Your task to perform on an android device: Show me the best rated power washer on Home Depot. Image 0: 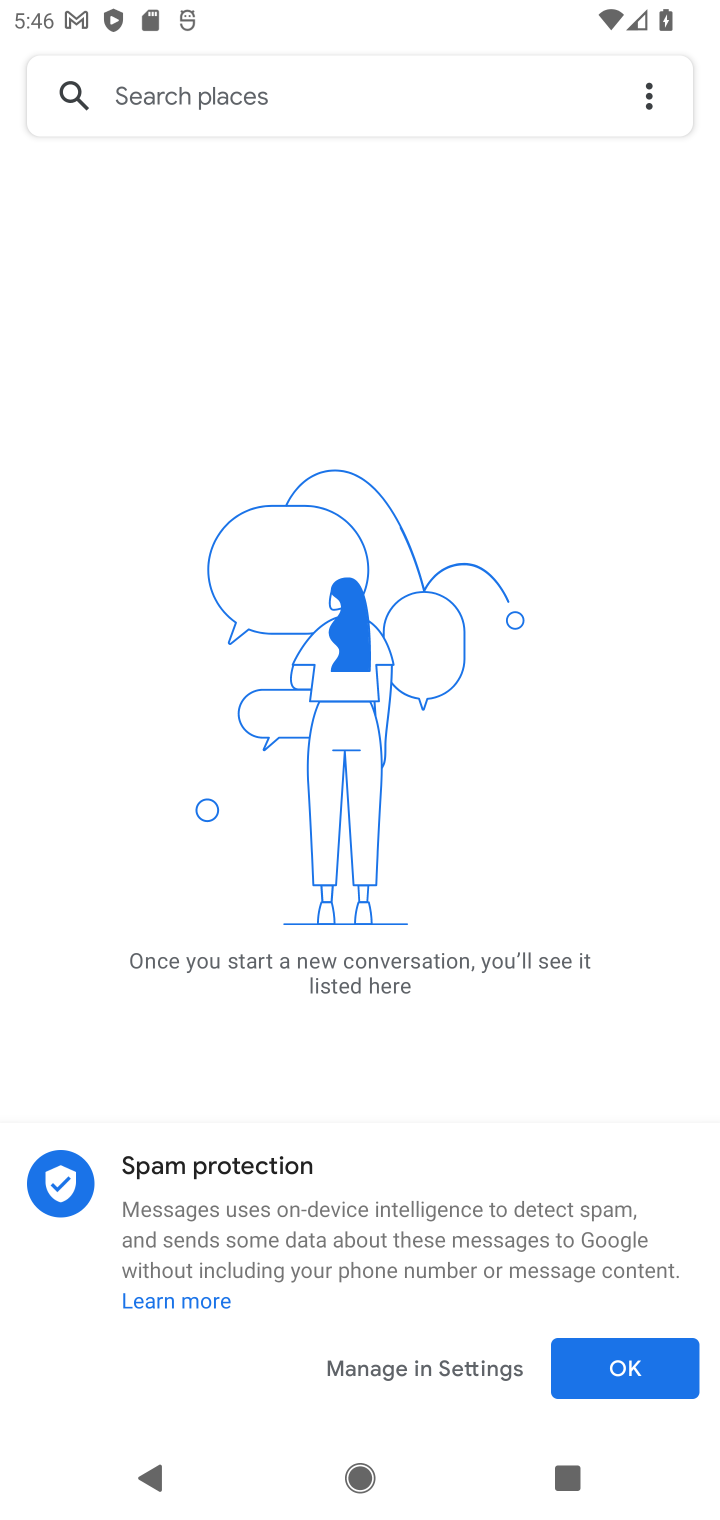
Step 0: press home button
Your task to perform on an android device: Show me the best rated power washer on Home Depot. Image 1: 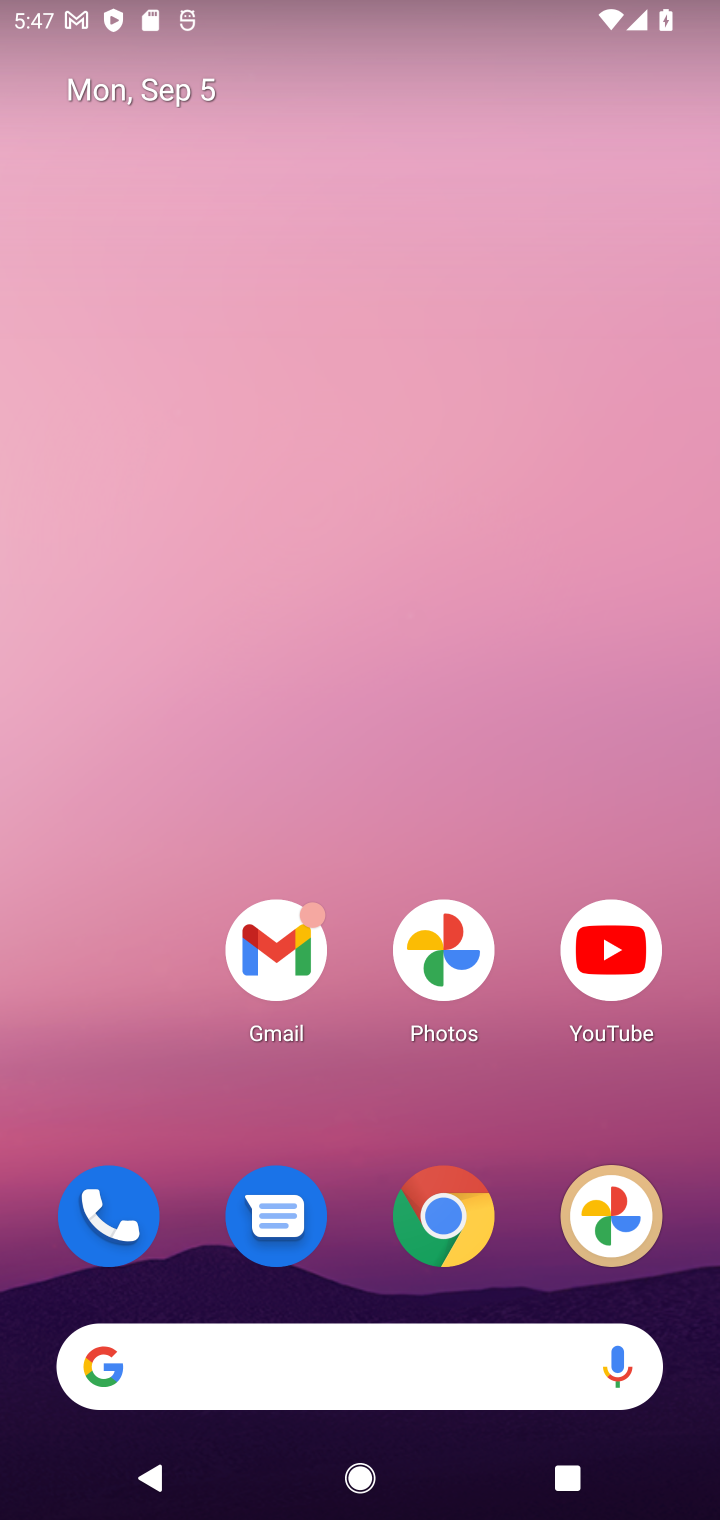
Step 1: click (456, 1193)
Your task to perform on an android device: Show me the best rated power washer on Home Depot. Image 2: 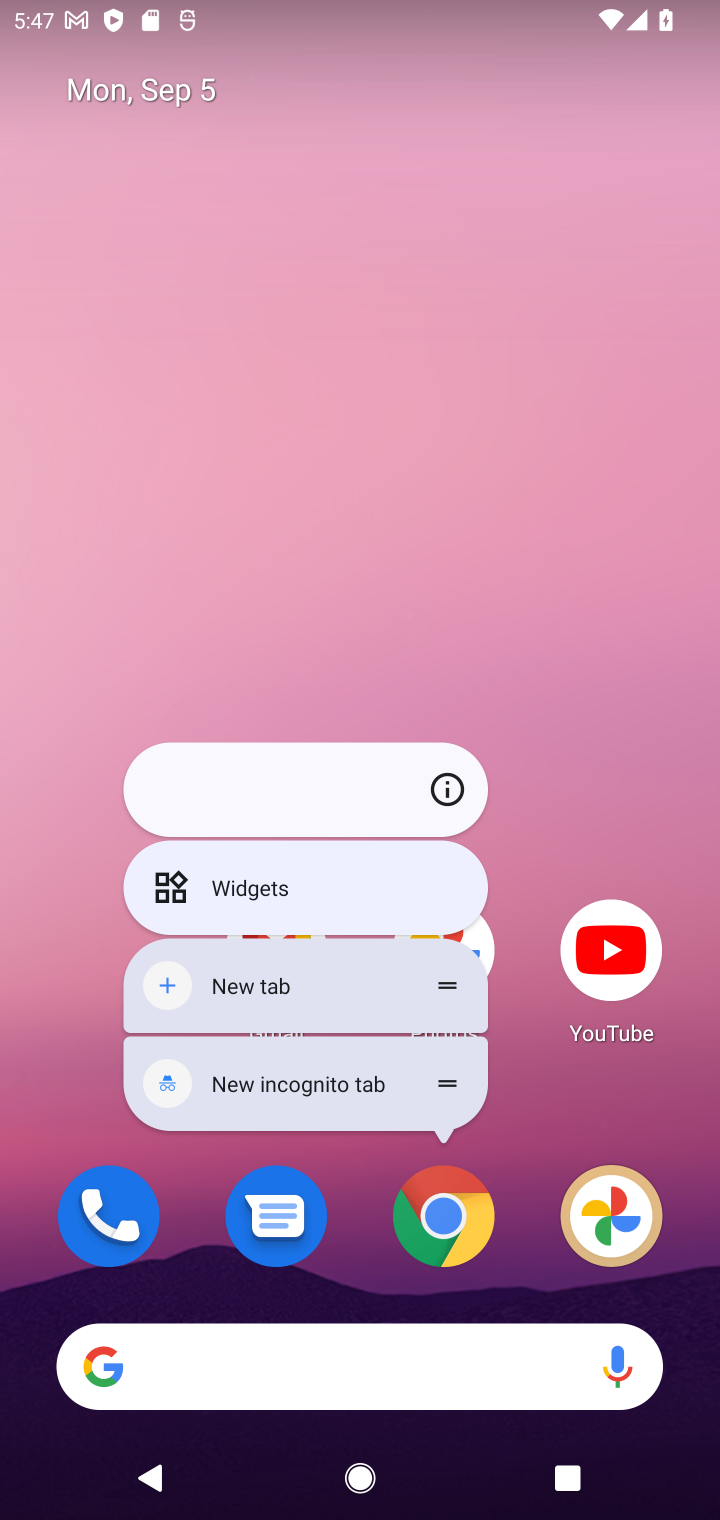
Step 2: click (456, 1193)
Your task to perform on an android device: Show me the best rated power washer on Home Depot. Image 3: 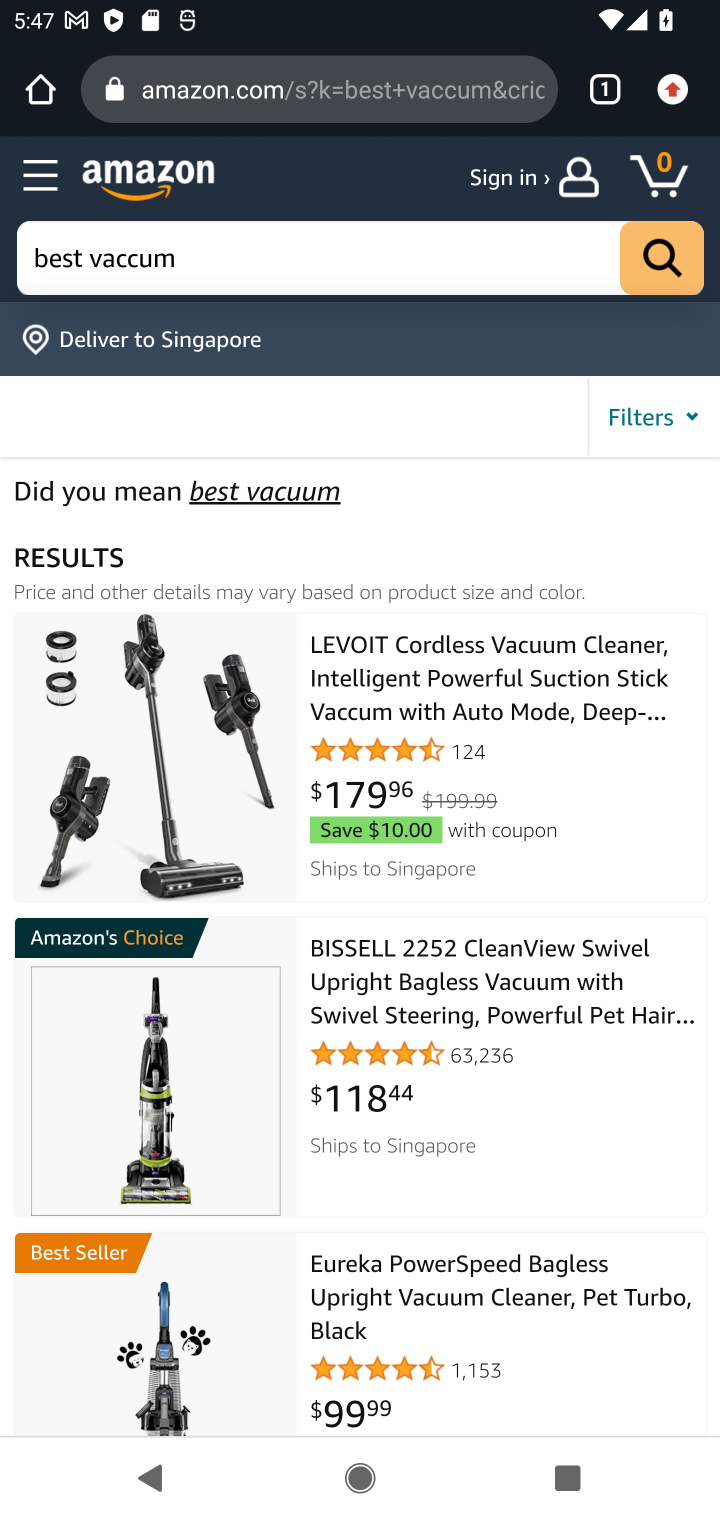
Step 3: click (326, 103)
Your task to perform on an android device: Show me the best rated power washer on Home Depot. Image 4: 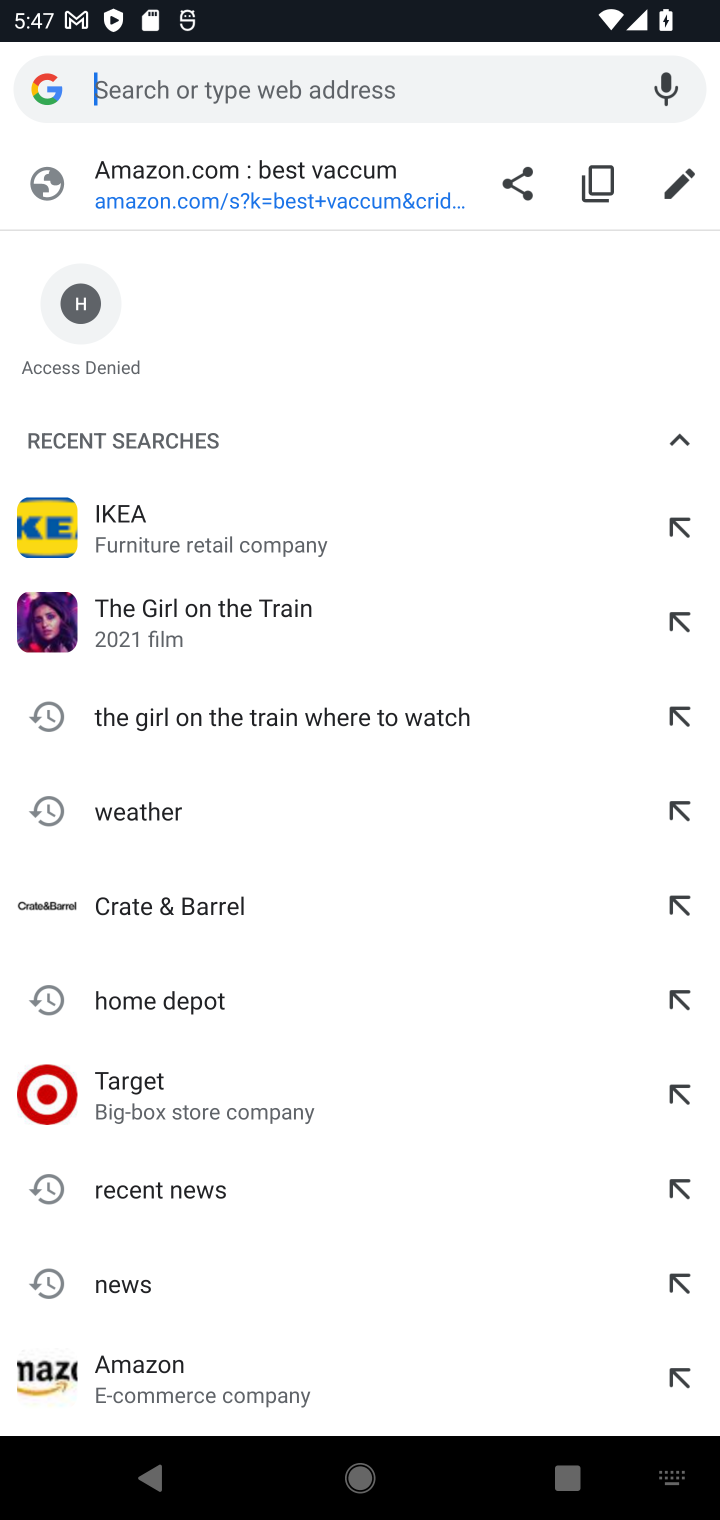
Step 4: type "home depot"
Your task to perform on an android device: Show me the best rated power washer on Home Depot. Image 5: 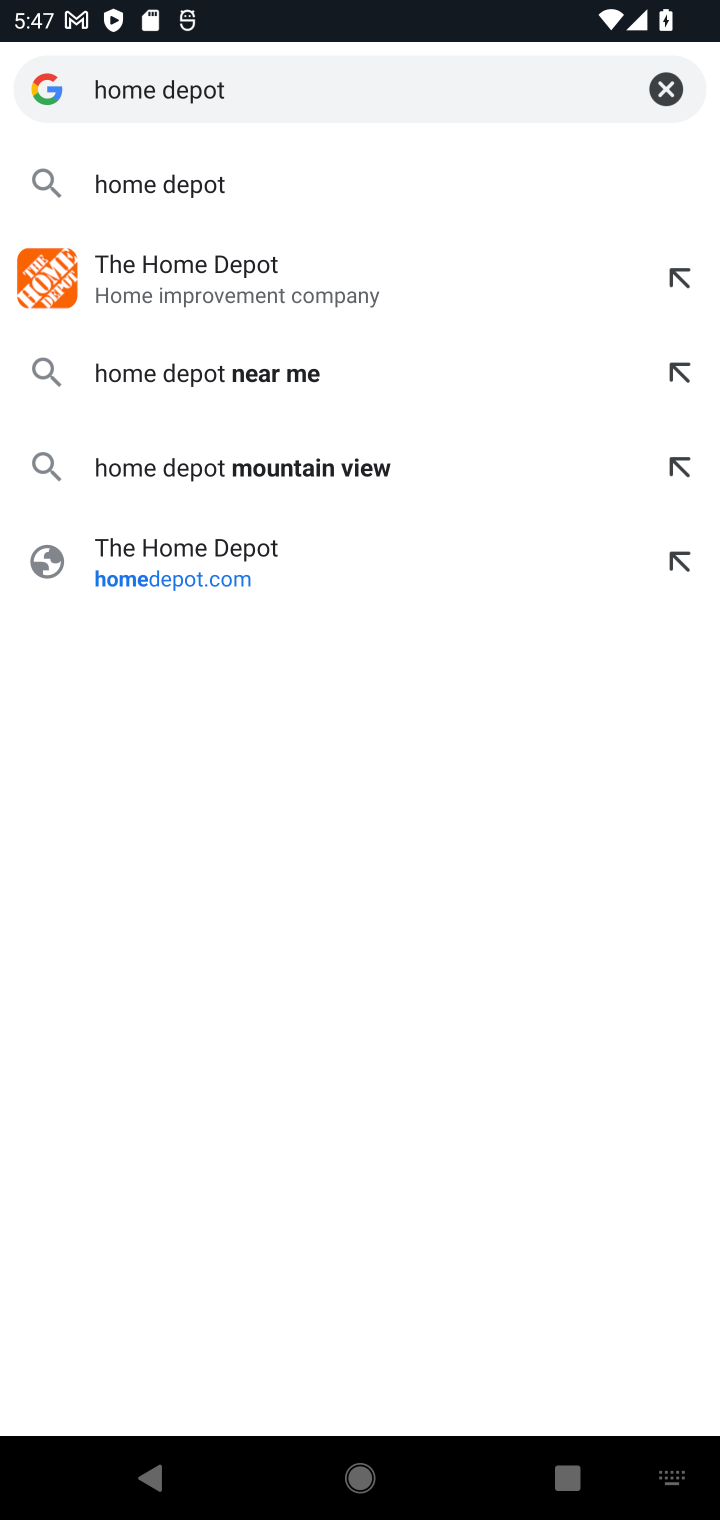
Step 5: click (326, 569)
Your task to perform on an android device: Show me the best rated power washer on Home Depot. Image 6: 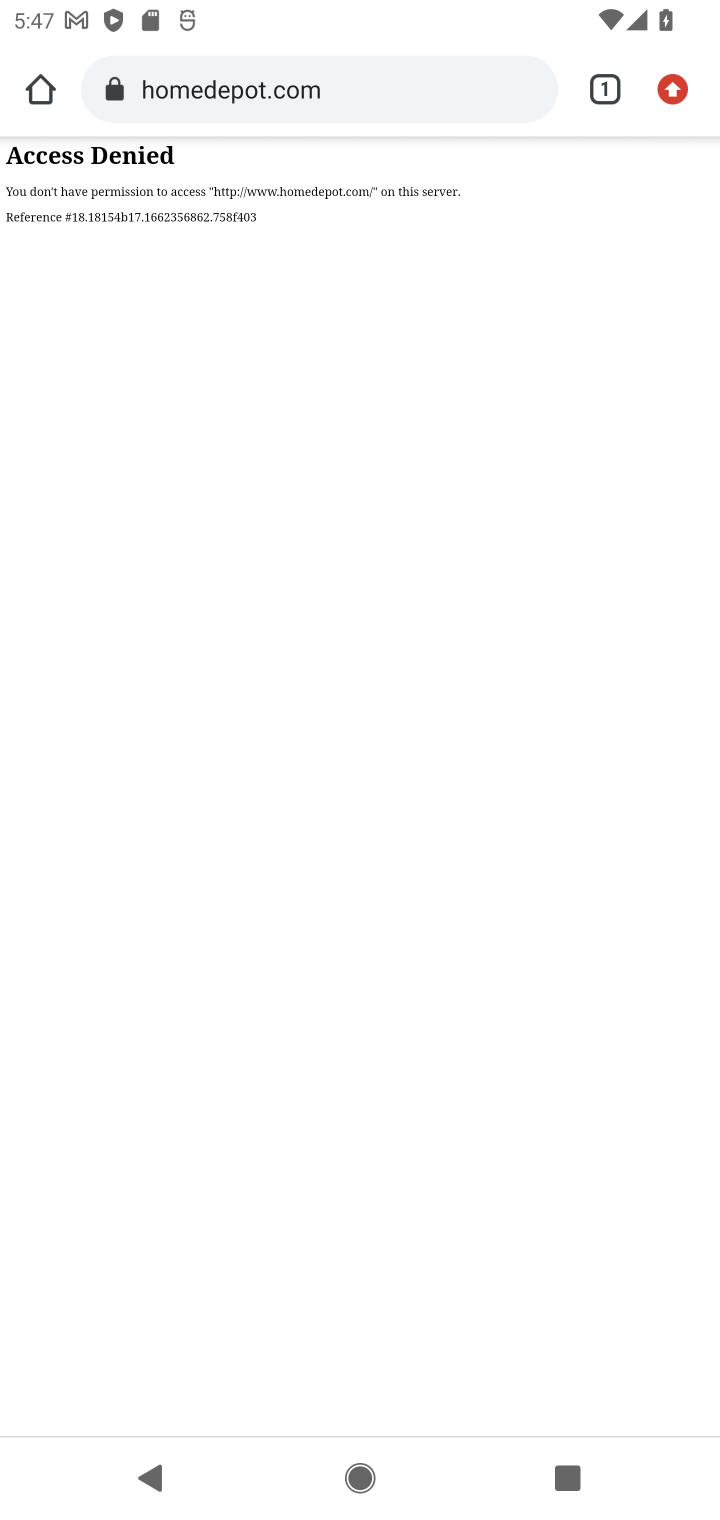
Step 6: task complete